Your task to perform on an android device: turn off location history Image 0: 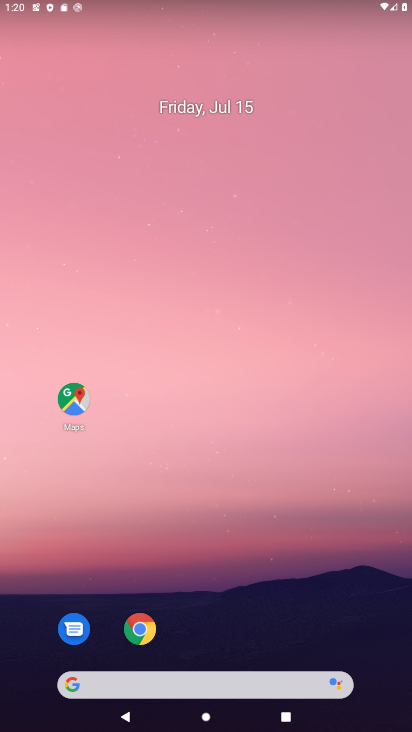
Step 0: drag from (285, 608) to (217, 50)
Your task to perform on an android device: turn off location history Image 1: 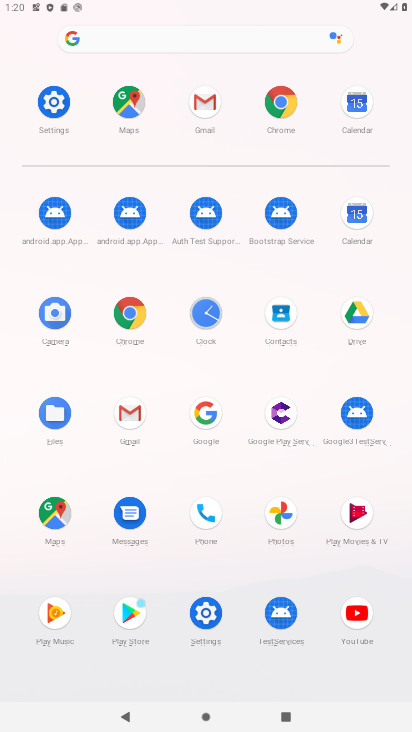
Step 1: click (51, 103)
Your task to perform on an android device: turn off location history Image 2: 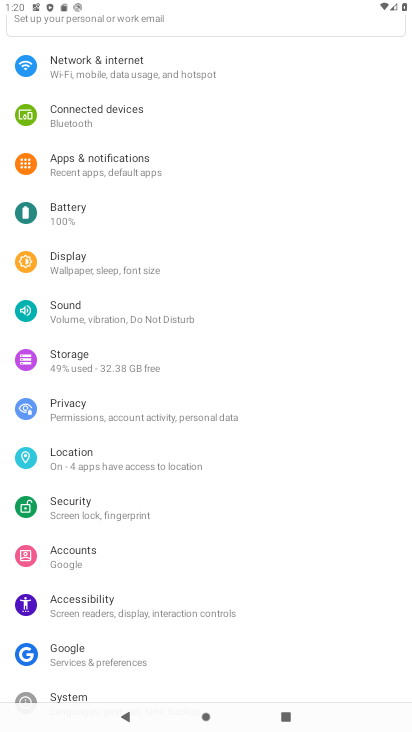
Step 2: click (151, 462)
Your task to perform on an android device: turn off location history Image 3: 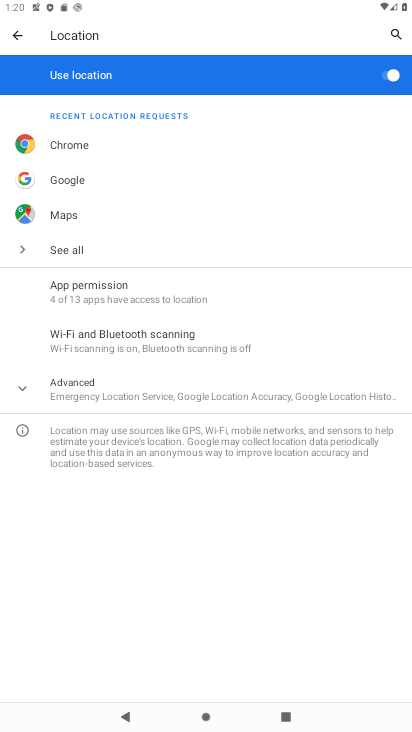
Step 3: click (95, 384)
Your task to perform on an android device: turn off location history Image 4: 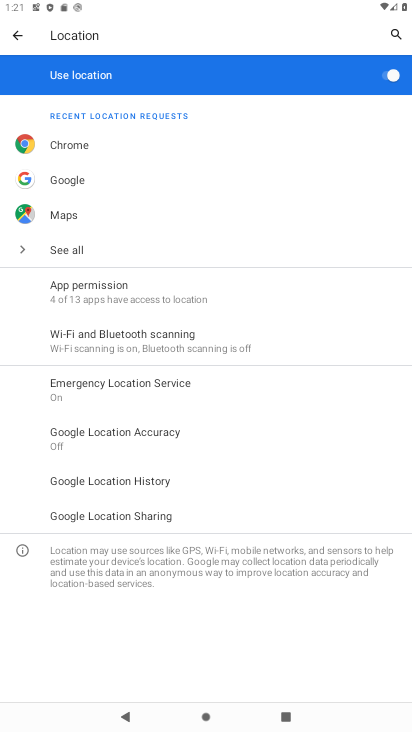
Step 4: click (97, 485)
Your task to perform on an android device: turn off location history Image 5: 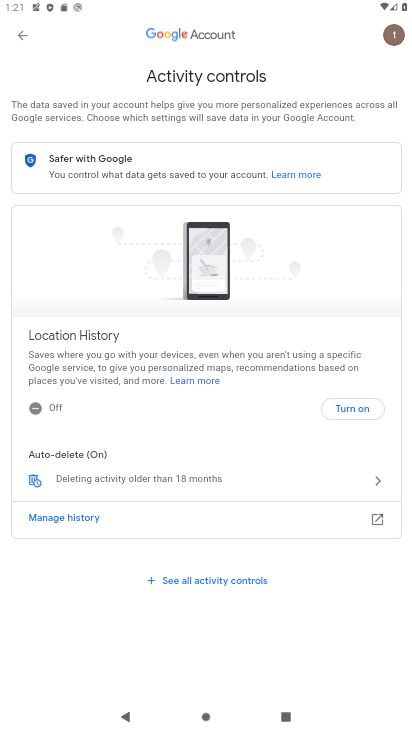
Step 5: task complete